Your task to perform on an android device: turn on location history Image 0: 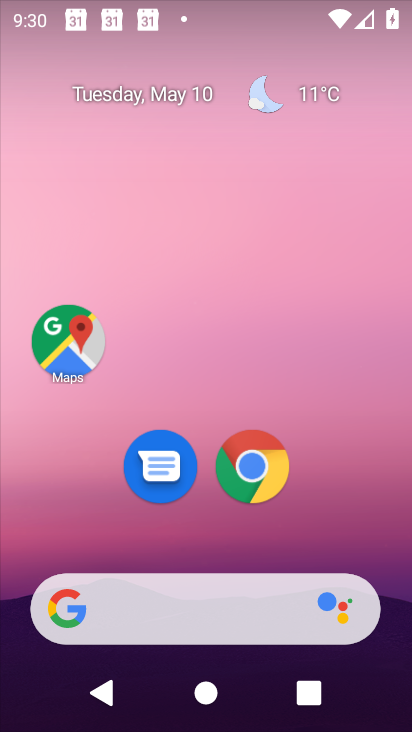
Step 0: drag from (313, 263) to (322, 14)
Your task to perform on an android device: turn on location history Image 1: 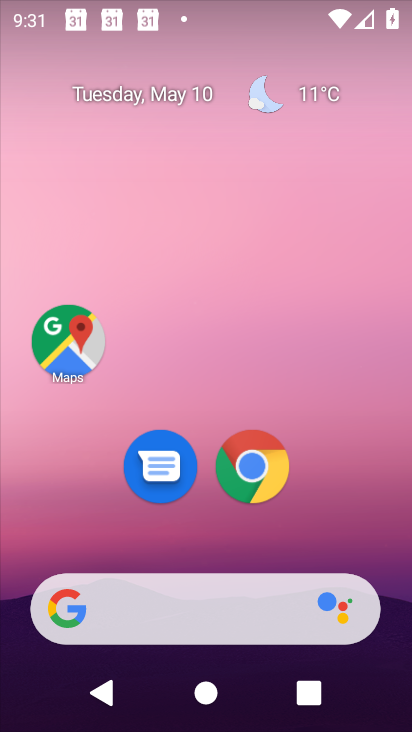
Step 1: drag from (325, 484) to (269, 27)
Your task to perform on an android device: turn on location history Image 2: 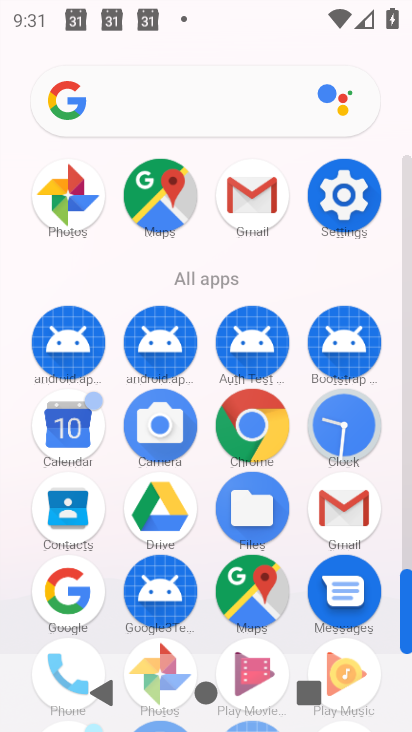
Step 2: click (351, 185)
Your task to perform on an android device: turn on location history Image 3: 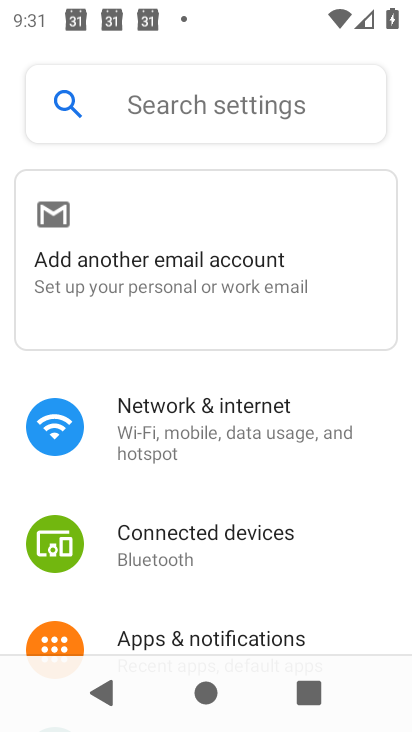
Step 3: drag from (249, 531) to (245, 55)
Your task to perform on an android device: turn on location history Image 4: 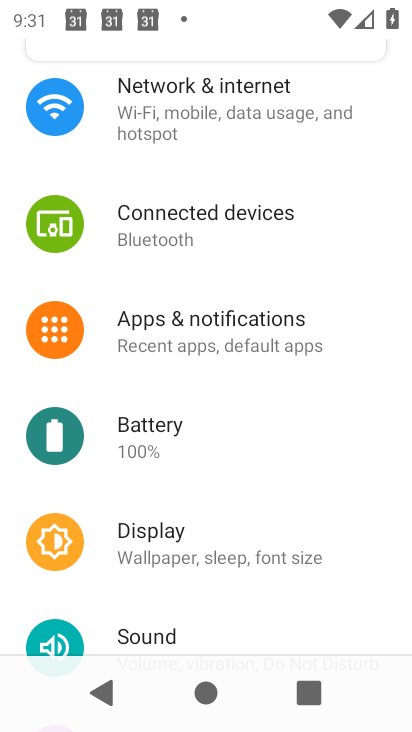
Step 4: drag from (207, 526) to (303, 0)
Your task to perform on an android device: turn on location history Image 5: 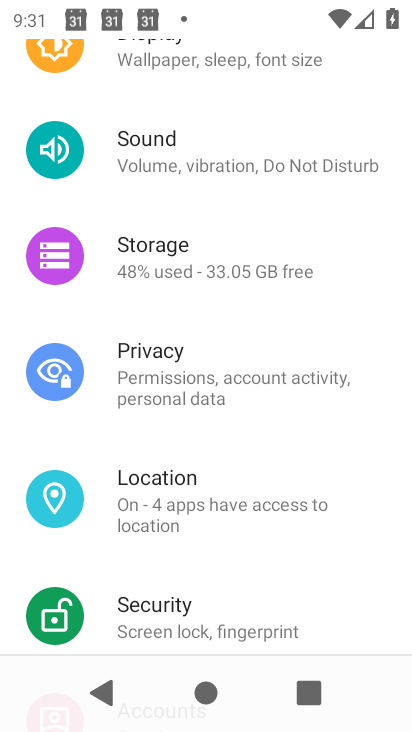
Step 5: click (185, 514)
Your task to perform on an android device: turn on location history Image 6: 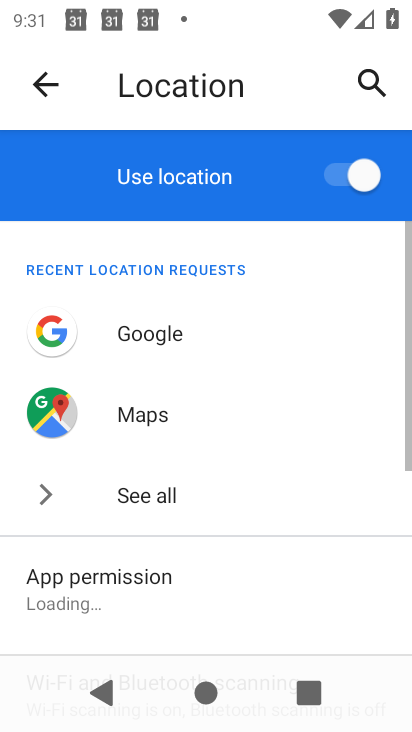
Step 6: drag from (223, 584) to (314, 1)
Your task to perform on an android device: turn on location history Image 7: 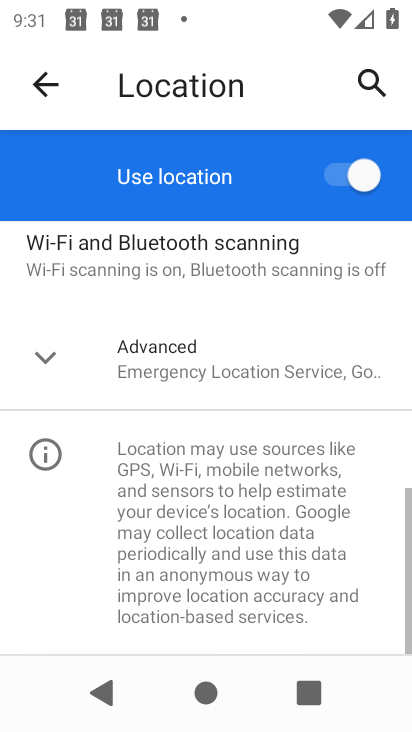
Step 7: click (202, 373)
Your task to perform on an android device: turn on location history Image 8: 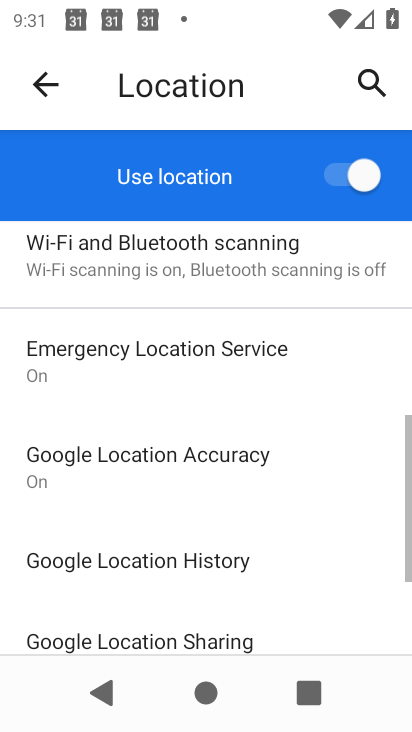
Step 8: drag from (214, 554) to (246, 285)
Your task to perform on an android device: turn on location history Image 9: 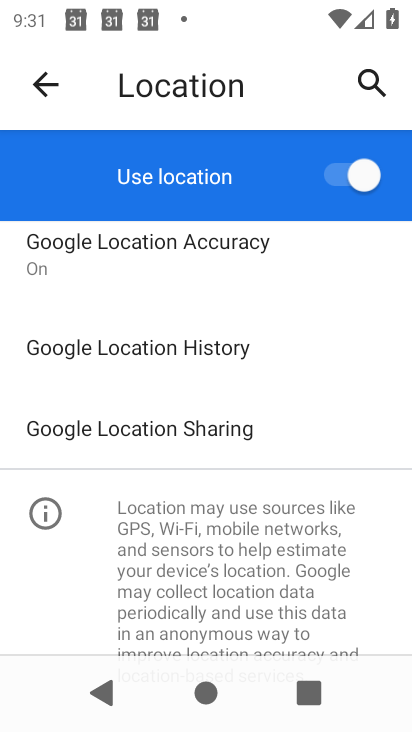
Step 9: click (190, 340)
Your task to perform on an android device: turn on location history Image 10: 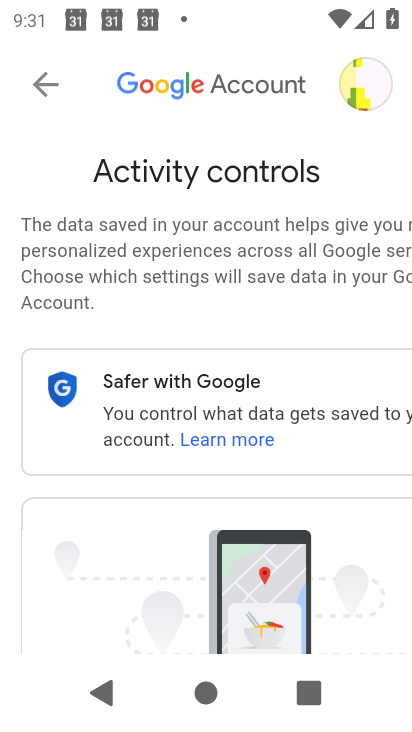
Step 10: task complete